Your task to perform on an android device: turn on airplane mode Image 0: 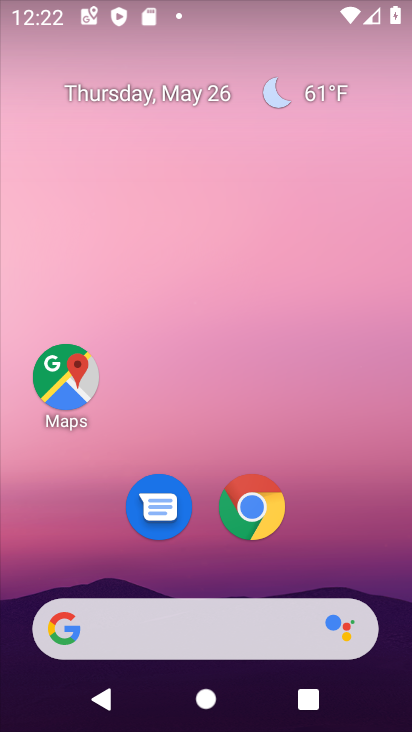
Step 0: drag from (373, 548) to (291, 2)
Your task to perform on an android device: turn on airplane mode Image 1: 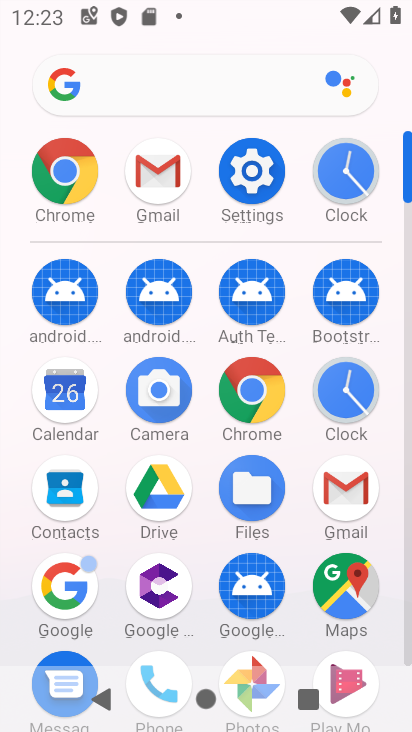
Step 1: click (254, 159)
Your task to perform on an android device: turn on airplane mode Image 2: 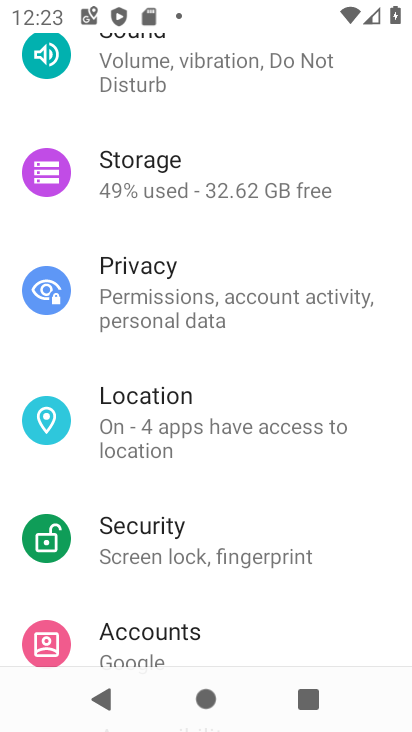
Step 2: drag from (209, 213) to (371, 727)
Your task to perform on an android device: turn on airplane mode Image 3: 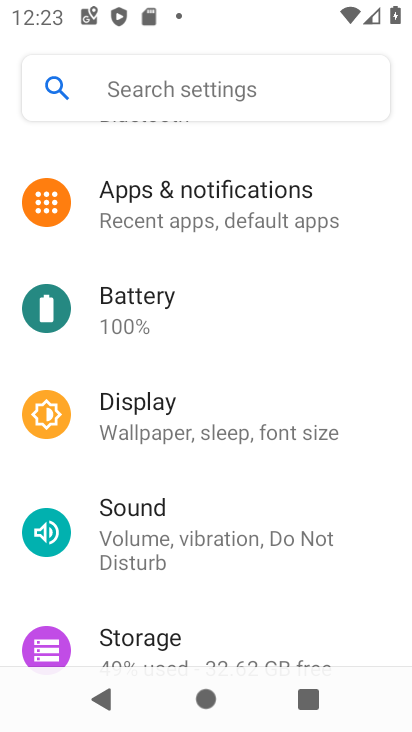
Step 3: drag from (290, 226) to (258, 677)
Your task to perform on an android device: turn on airplane mode Image 4: 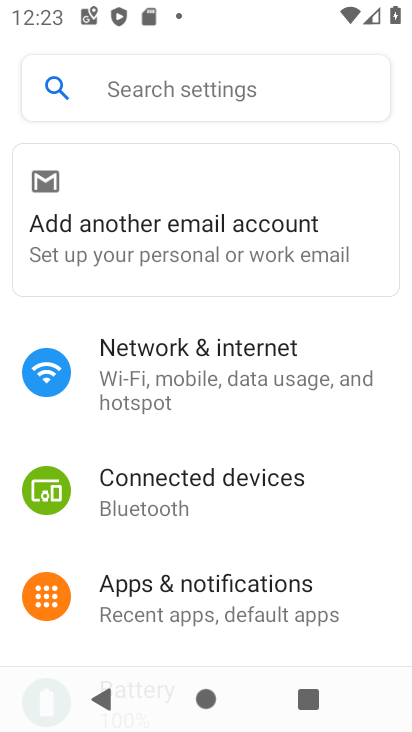
Step 4: click (148, 397)
Your task to perform on an android device: turn on airplane mode Image 5: 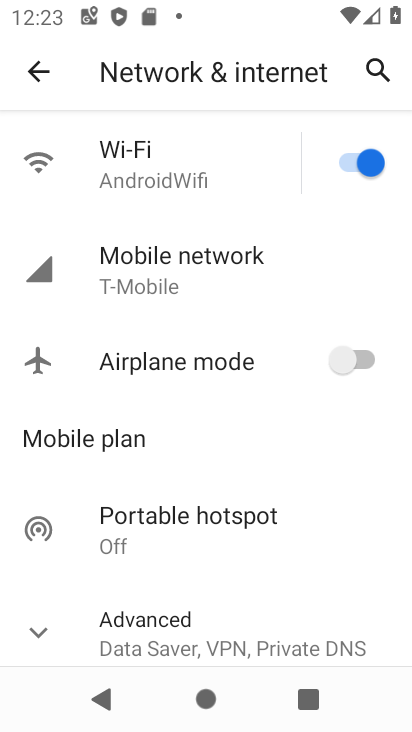
Step 5: click (361, 364)
Your task to perform on an android device: turn on airplane mode Image 6: 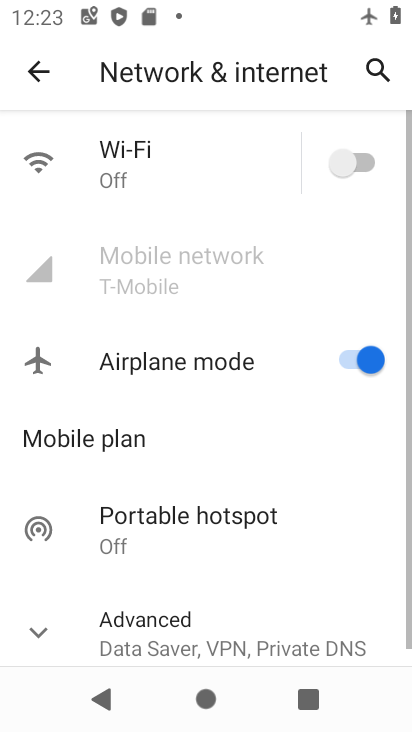
Step 6: task complete